Your task to perform on an android device: Go to CNN.com Image 0: 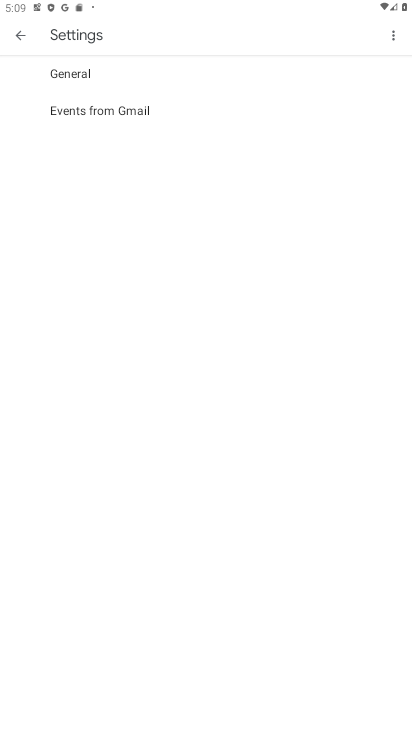
Step 0: click (12, 42)
Your task to perform on an android device: Go to CNN.com Image 1: 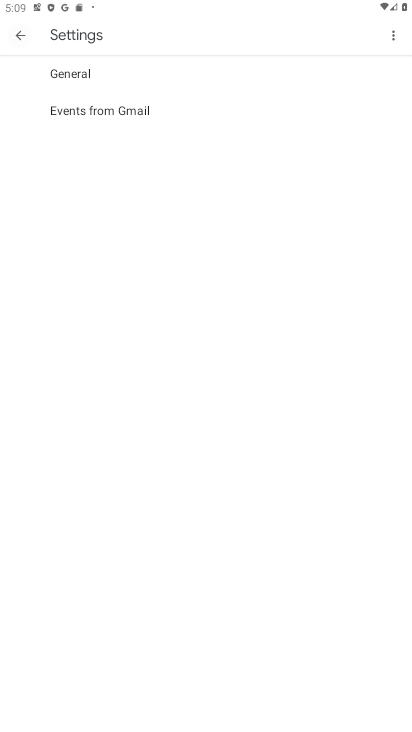
Step 1: click (11, 41)
Your task to perform on an android device: Go to CNN.com Image 2: 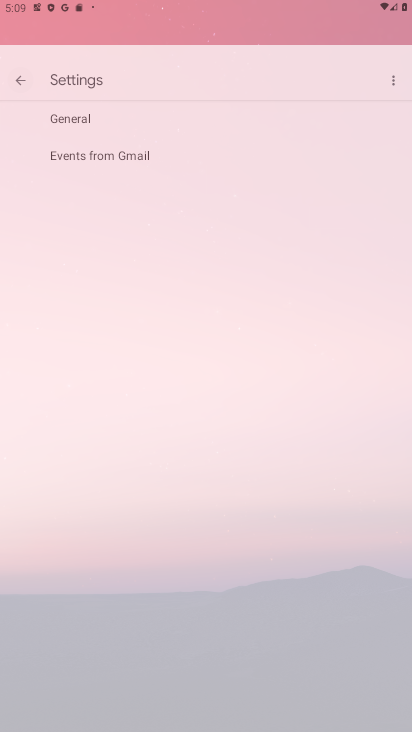
Step 2: click (11, 41)
Your task to perform on an android device: Go to CNN.com Image 3: 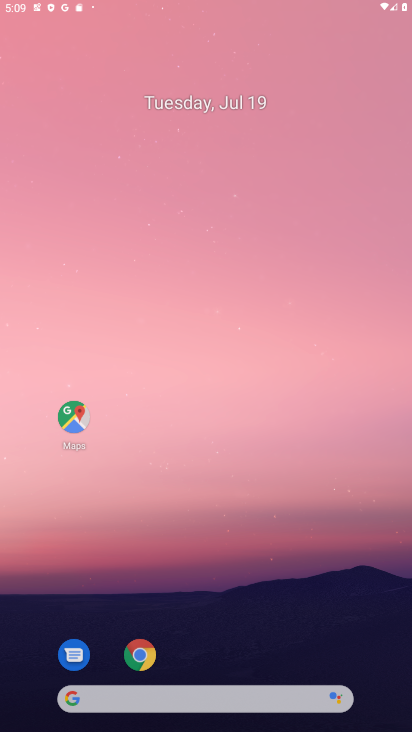
Step 3: click (11, 41)
Your task to perform on an android device: Go to CNN.com Image 4: 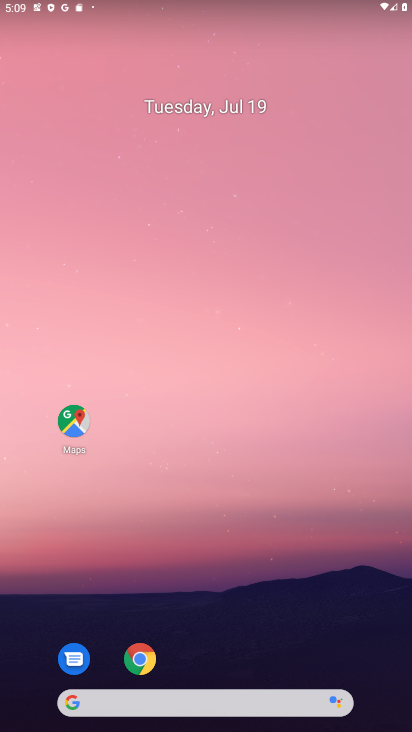
Step 4: drag from (234, 681) to (140, 132)
Your task to perform on an android device: Go to CNN.com Image 5: 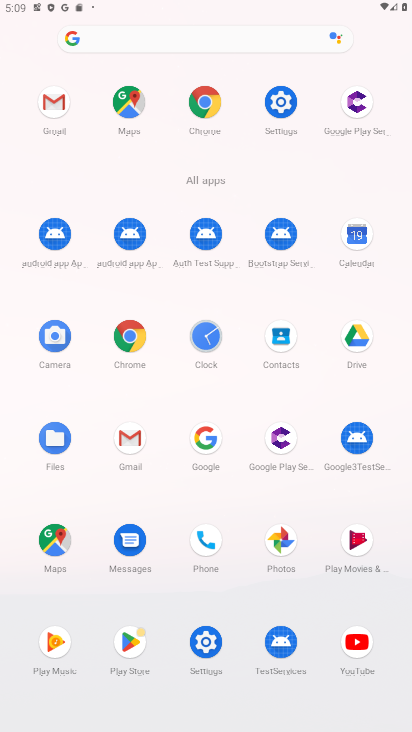
Step 5: click (209, 103)
Your task to perform on an android device: Go to CNN.com Image 6: 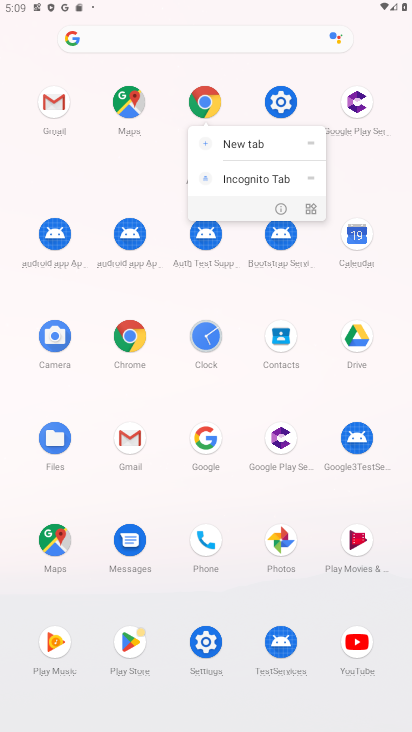
Step 6: click (230, 143)
Your task to perform on an android device: Go to CNN.com Image 7: 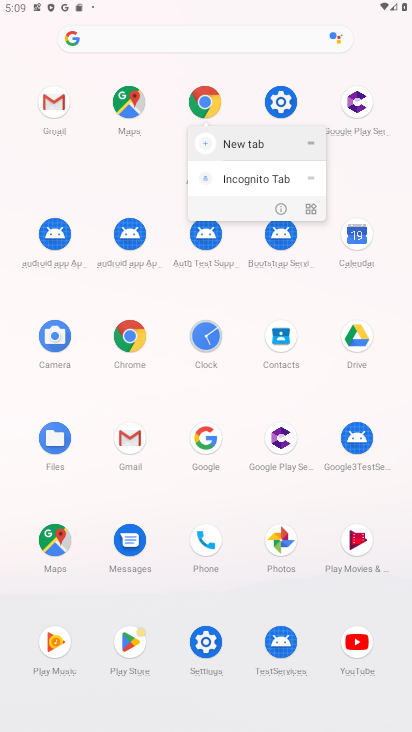
Step 7: click (230, 142)
Your task to perform on an android device: Go to CNN.com Image 8: 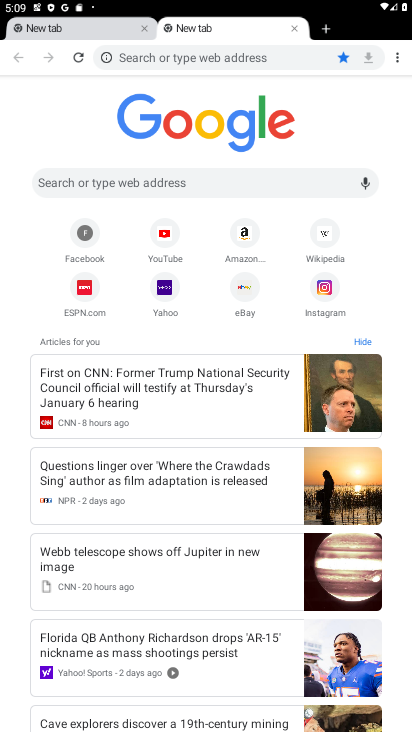
Step 8: type "CNN>COM"
Your task to perform on an android device: Go to CNN.com Image 9: 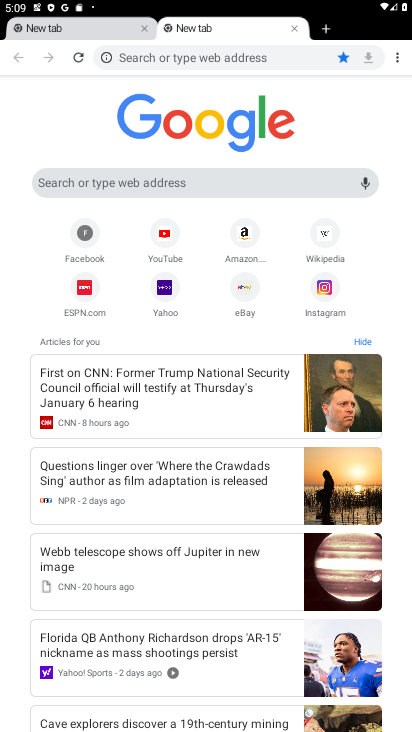
Step 9: click (85, 164)
Your task to perform on an android device: Go to CNN.com Image 10: 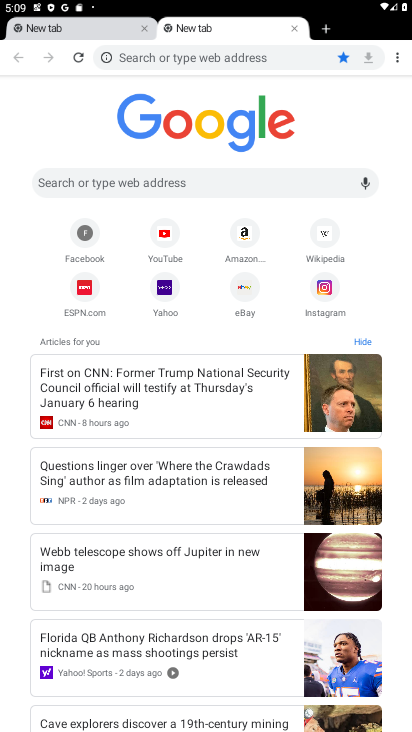
Step 10: click (91, 192)
Your task to perform on an android device: Go to CNN.com Image 11: 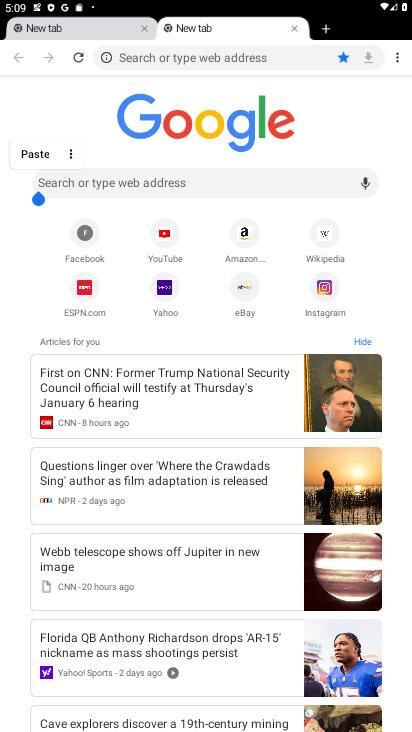
Step 11: click (98, 181)
Your task to perform on an android device: Go to CNN.com Image 12: 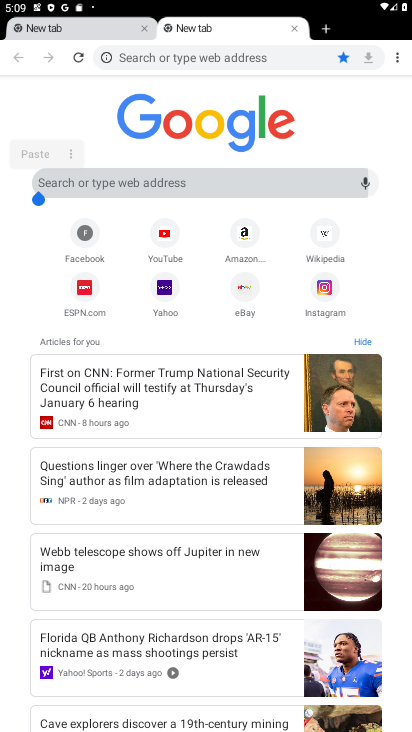
Step 12: click (95, 180)
Your task to perform on an android device: Go to CNN.com Image 13: 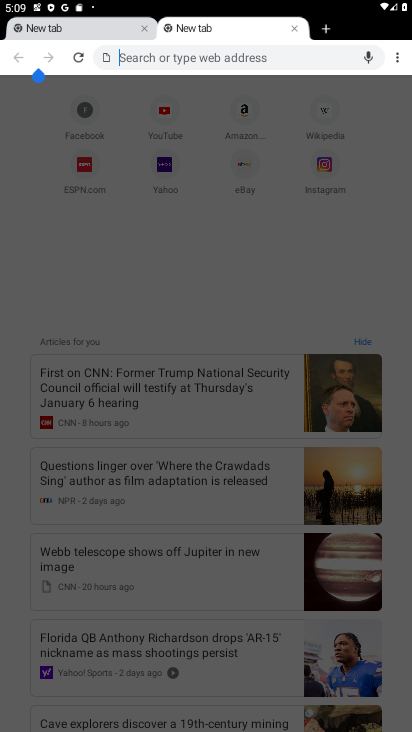
Step 13: click (99, 183)
Your task to perform on an android device: Go to CNN.com Image 14: 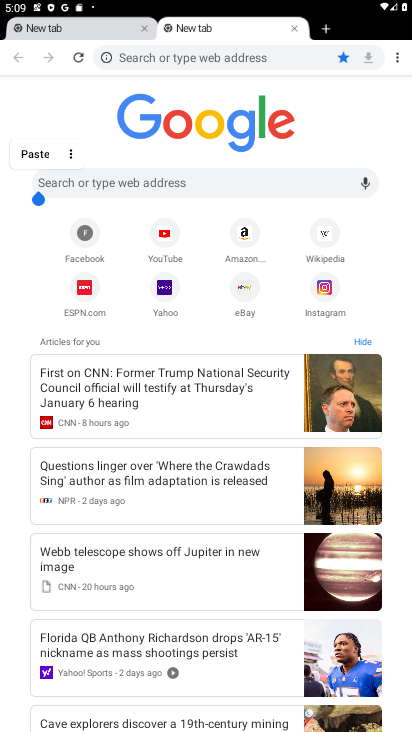
Step 14: click (65, 175)
Your task to perform on an android device: Go to CNN.com Image 15: 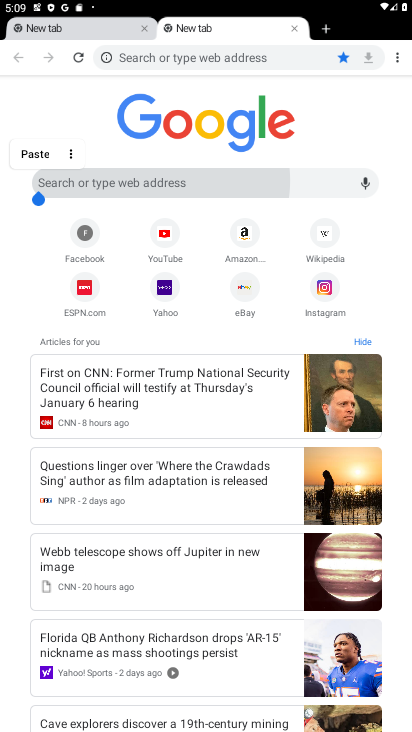
Step 15: click (66, 175)
Your task to perform on an android device: Go to CNN.com Image 16: 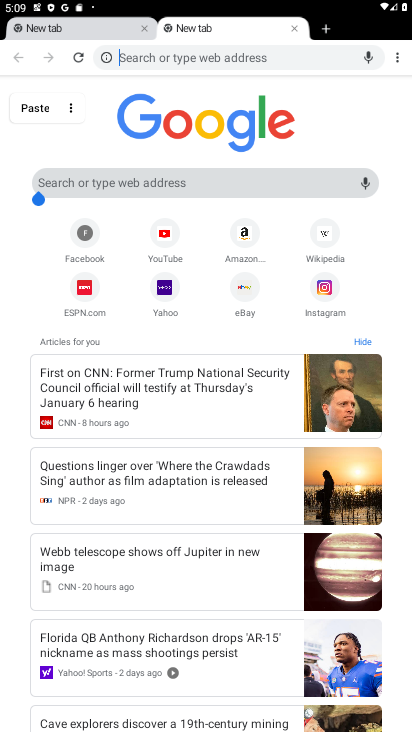
Step 16: click (70, 175)
Your task to perform on an android device: Go to CNN.com Image 17: 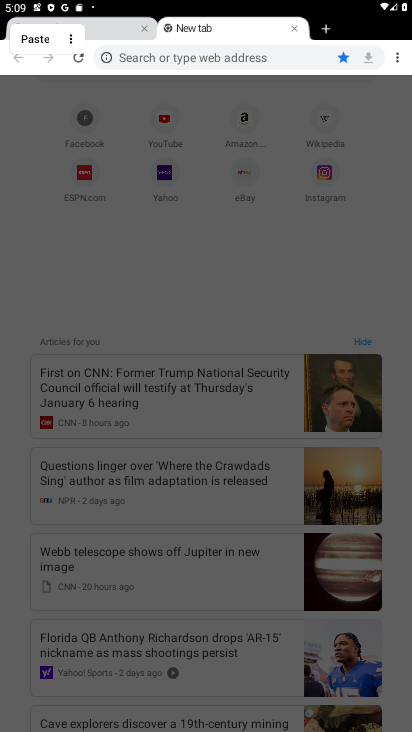
Step 17: click (71, 175)
Your task to perform on an android device: Go to CNN.com Image 18: 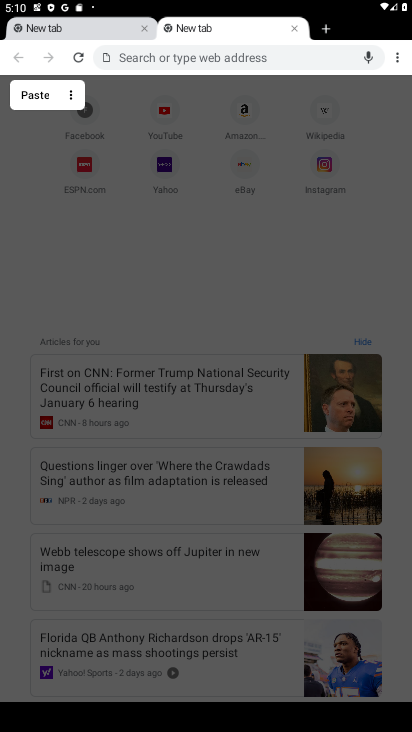
Step 18: type "CNN.com"
Your task to perform on an android device: Go to CNN.com Image 19: 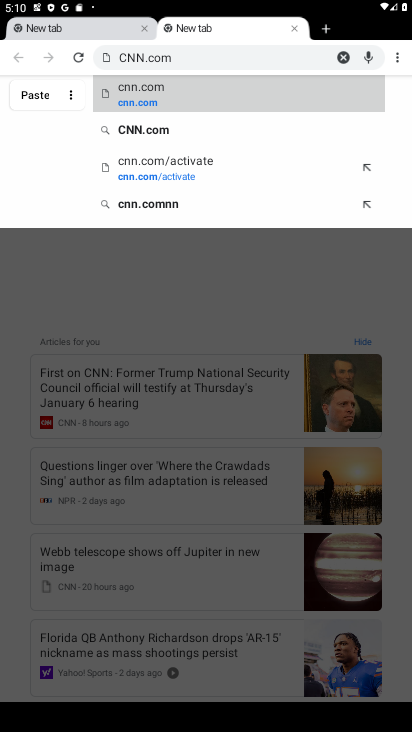
Step 19: click (116, 101)
Your task to perform on an android device: Go to CNN.com Image 20: 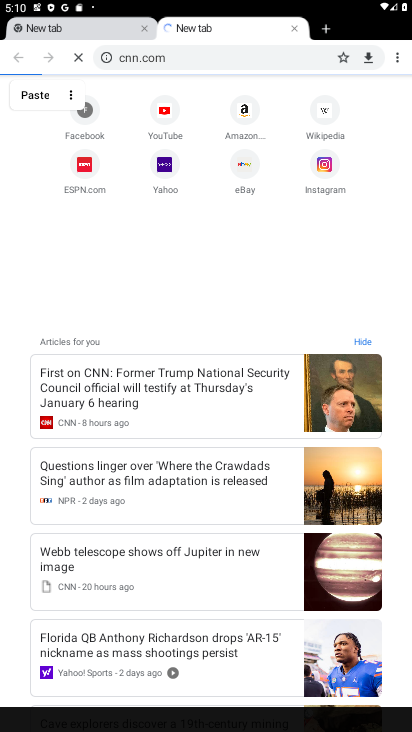
Step 20: click (134, 94)
Your task to perform on an android device: Go to CNN.com Image 21: 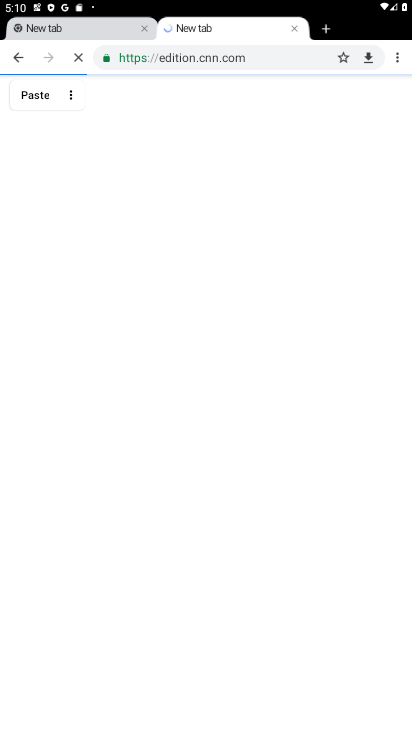
Step 21: click (157, 87)
Your task to perform on an android device: Go to CNN.com Image 22: 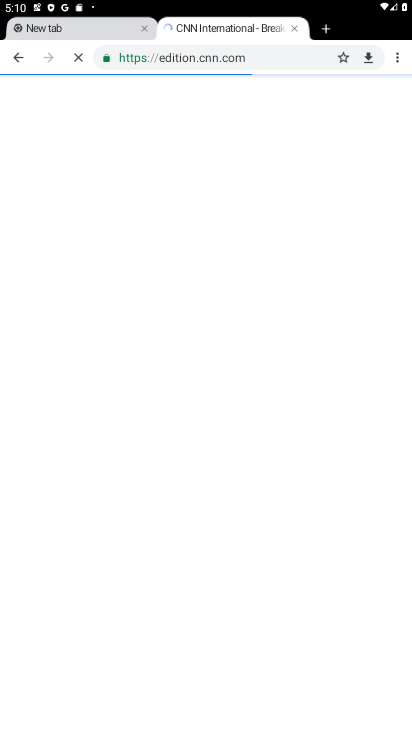
Step 22: task complete